Your task to perform on an android device: Go to location settings Image 0: 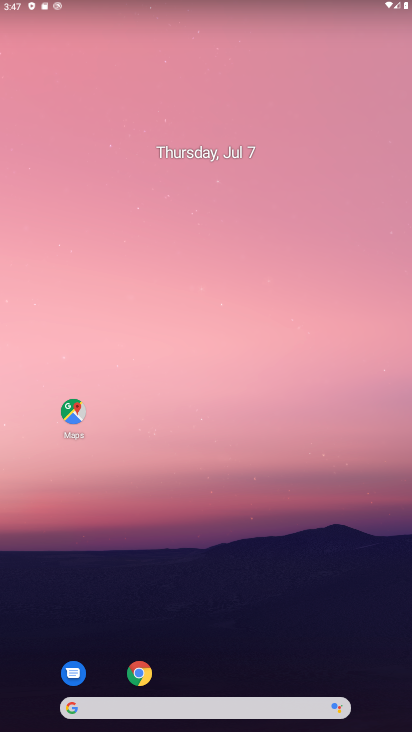
Step 0: drag from (217, 669) to (230, 126)
Your task to perform on an android device: Go to location settings Image 1: 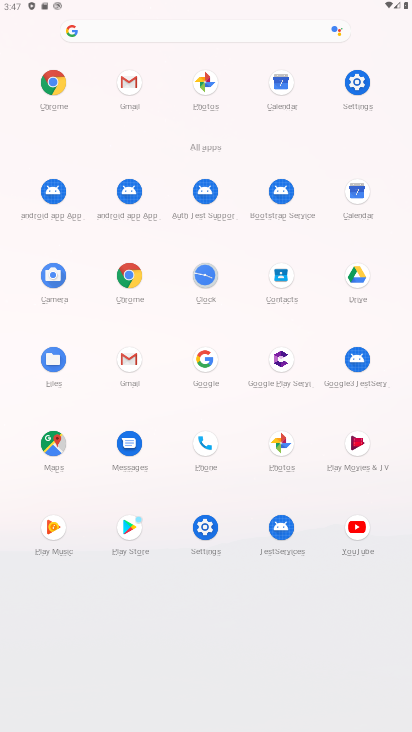
Step 1: click (354, 76)
Your task to perform on an android device: Go to location settings Image 2: 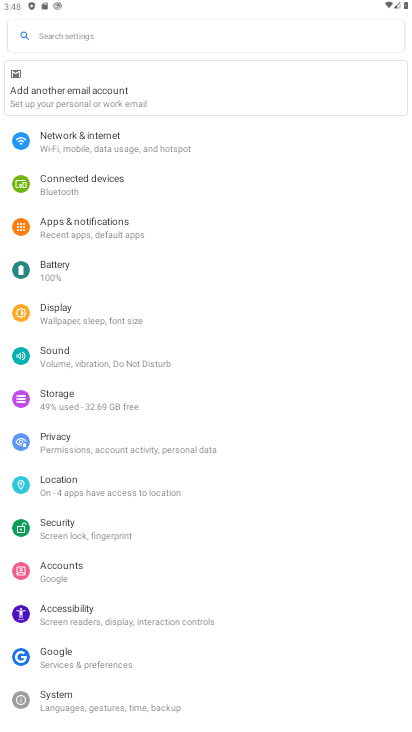
Step 2: click (83, 482)
Your task to perform on an android device: Go to location settings Image 3: 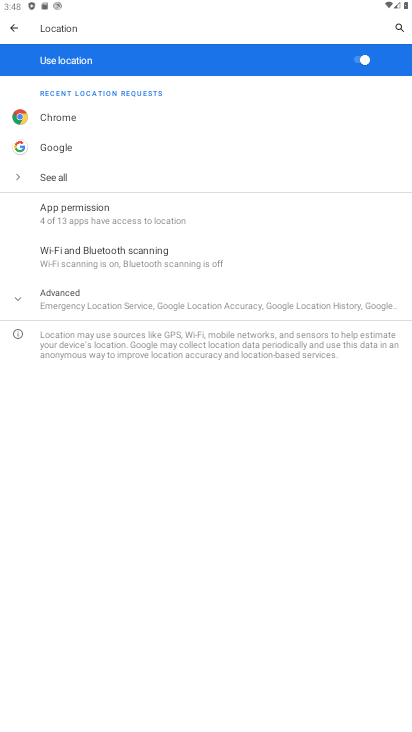
Step 3: click (15, 297)
Your task to perform on an android device: Go to location settings Image 4: 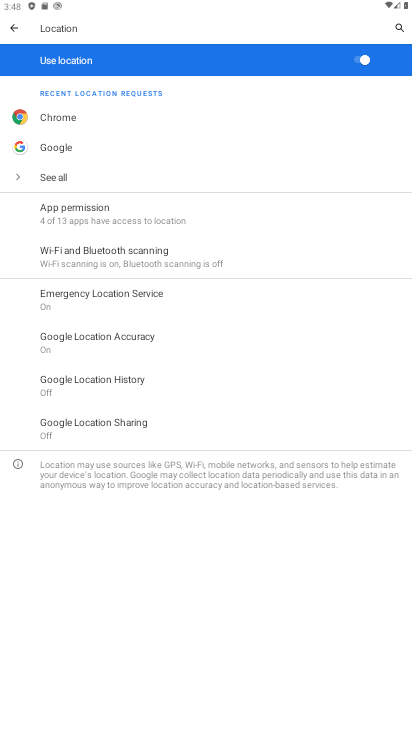
Step 4: task complete